Your task to perform on an android device: Add "lenovo thinkpad" to the cart on walmart.com, then select checkout. Image 0: 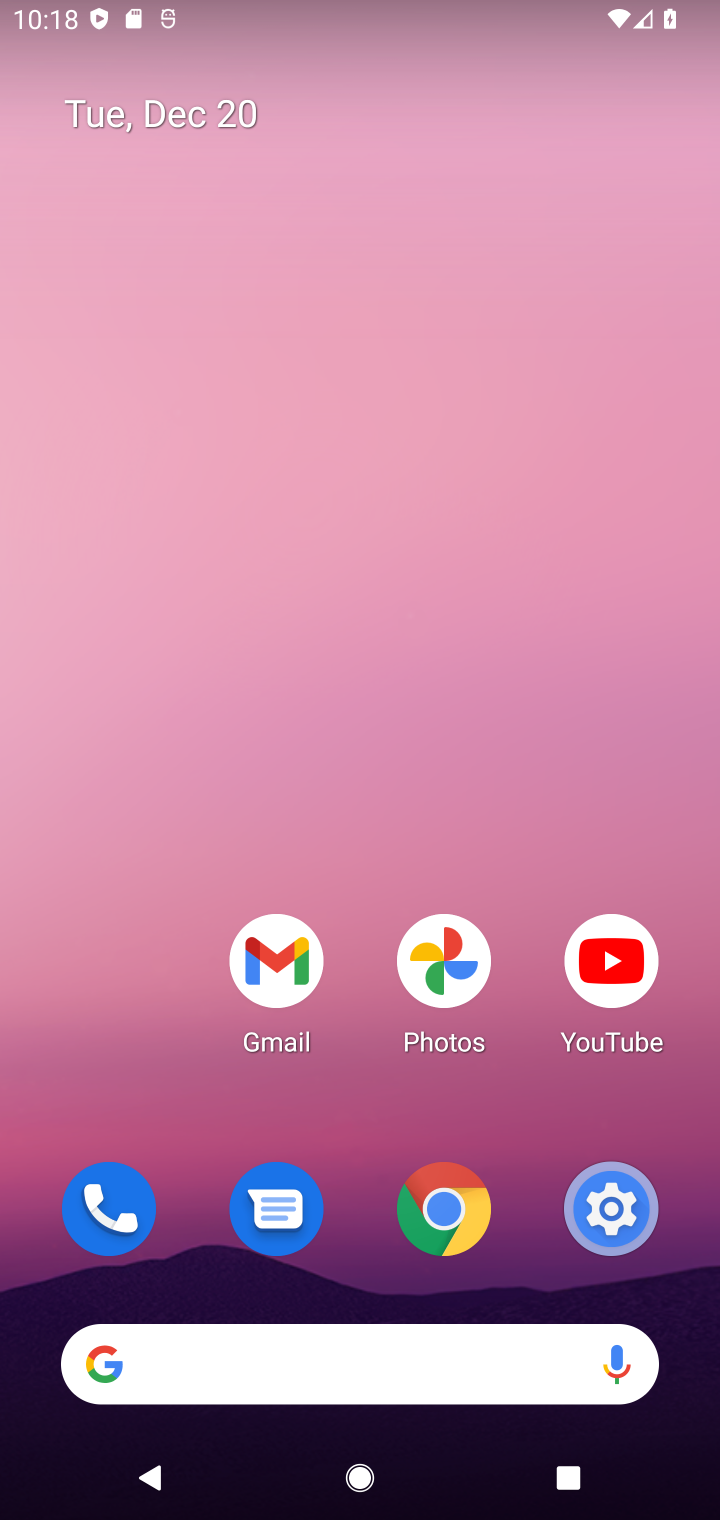
Step 0: click (445, 1225)
Your task to perform on an android device: Add "lenovo thinkpad" to the cart on walmart.com, then select checkout. Image 1: 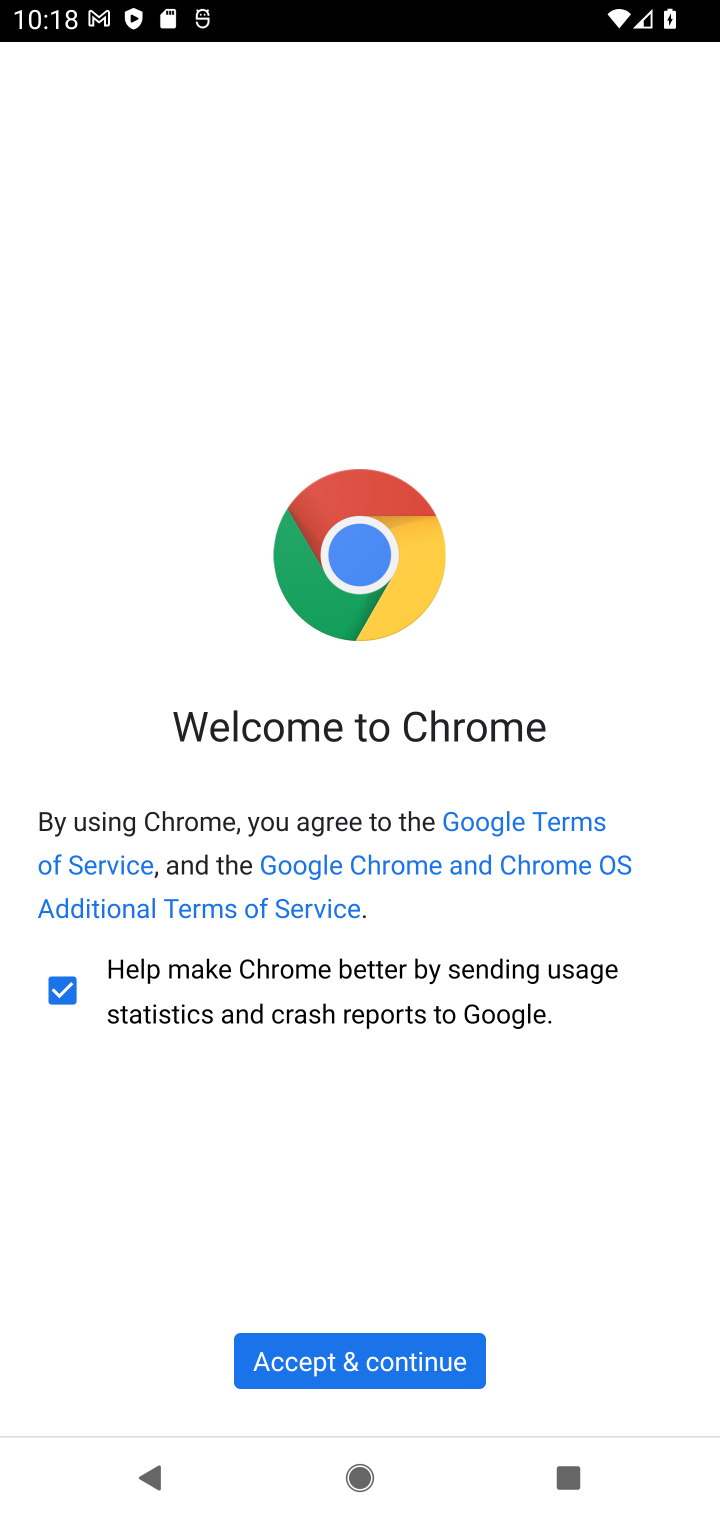
Step 1: click (347, 1371)
Your task to perform on an android device: Add "lenovo thinkpad" to the cart on walmart.com, then select checkout. Image 2: 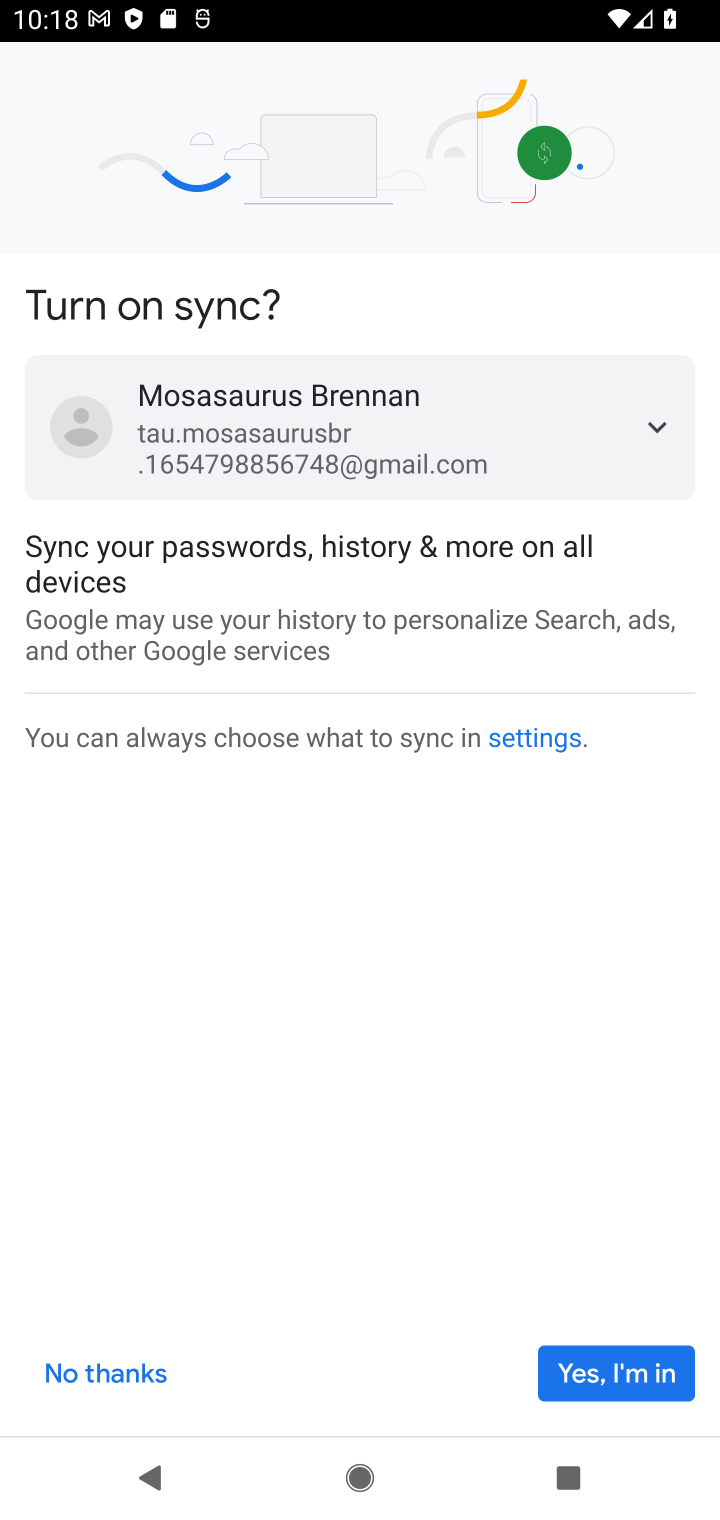
Step 2: click (120, 1381)
Your task to perform on an android device: Add "lenovo thinkpad" to the cart on walmart.com, then select checkout. Image 3: 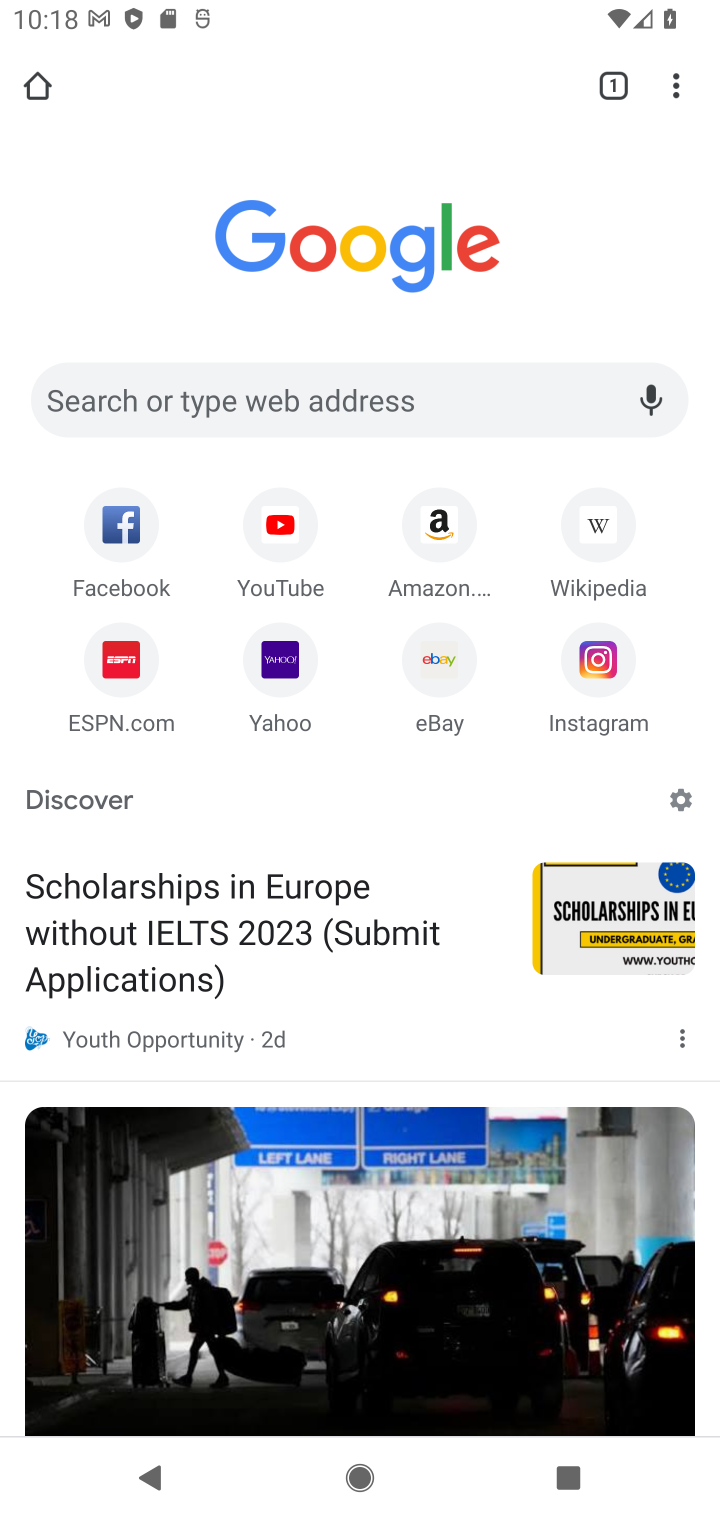
Step 3: click (183, 411)
Your task to perform on an android device: Add "lenovo thinkpad" to the cart on walmart.com, then select checkout. Image 4: 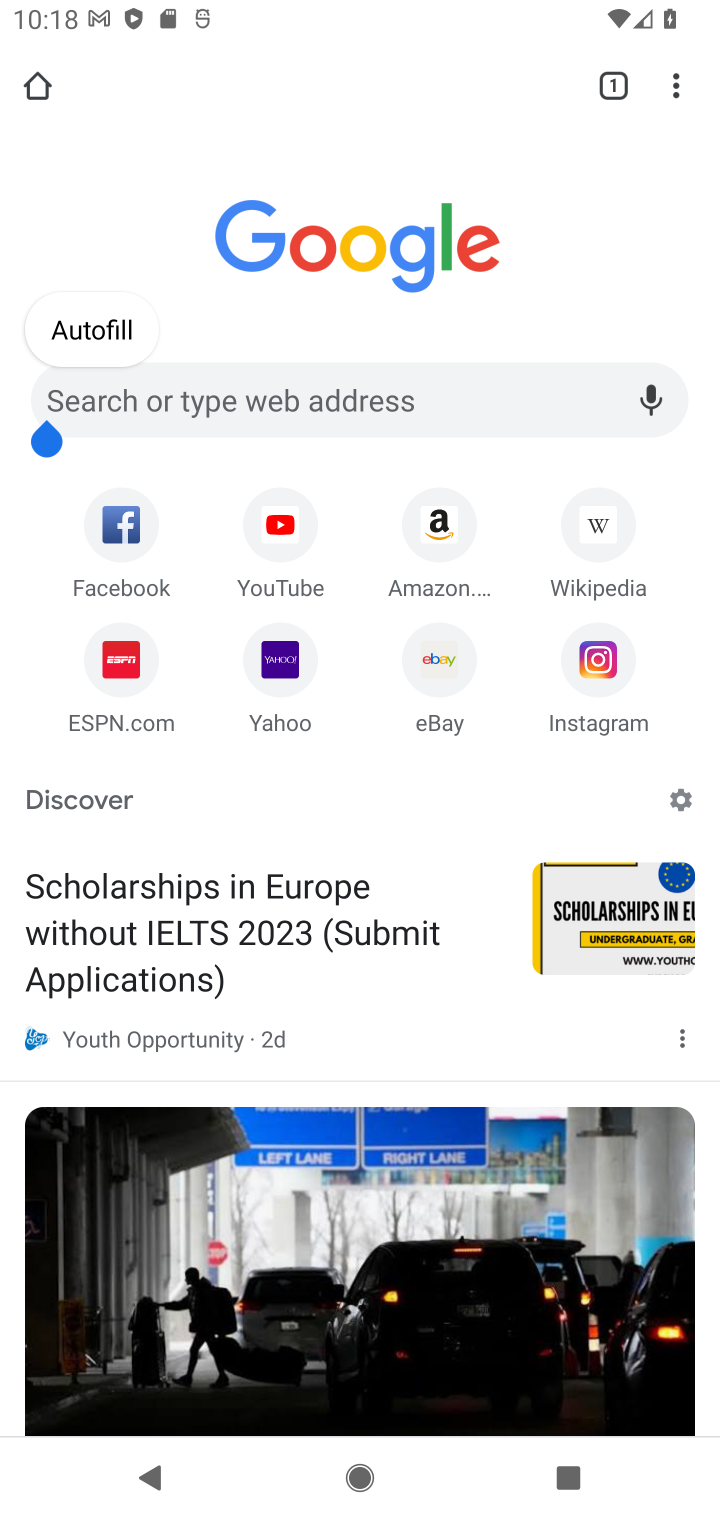
Step 4: click (201, 399)
Your task to perform on an android device: Add "lenovo thinkpad" to the cart on walmart.com, then select checkout. Image 5: 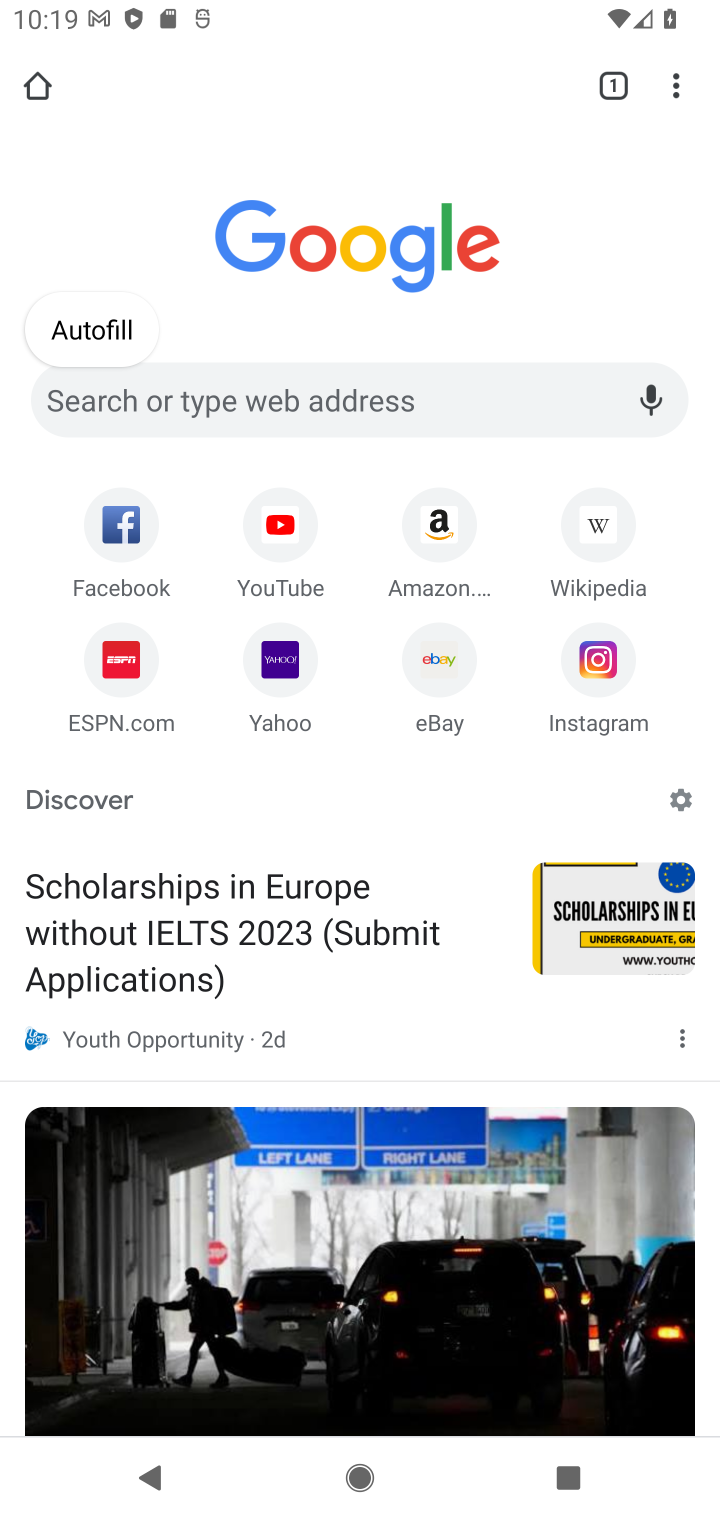
Step 5: click (143, 406)
Your task to perform on an android device: Add "lenovo thinkpad" to the cart on walmart.com, then select checkout. Image 6: 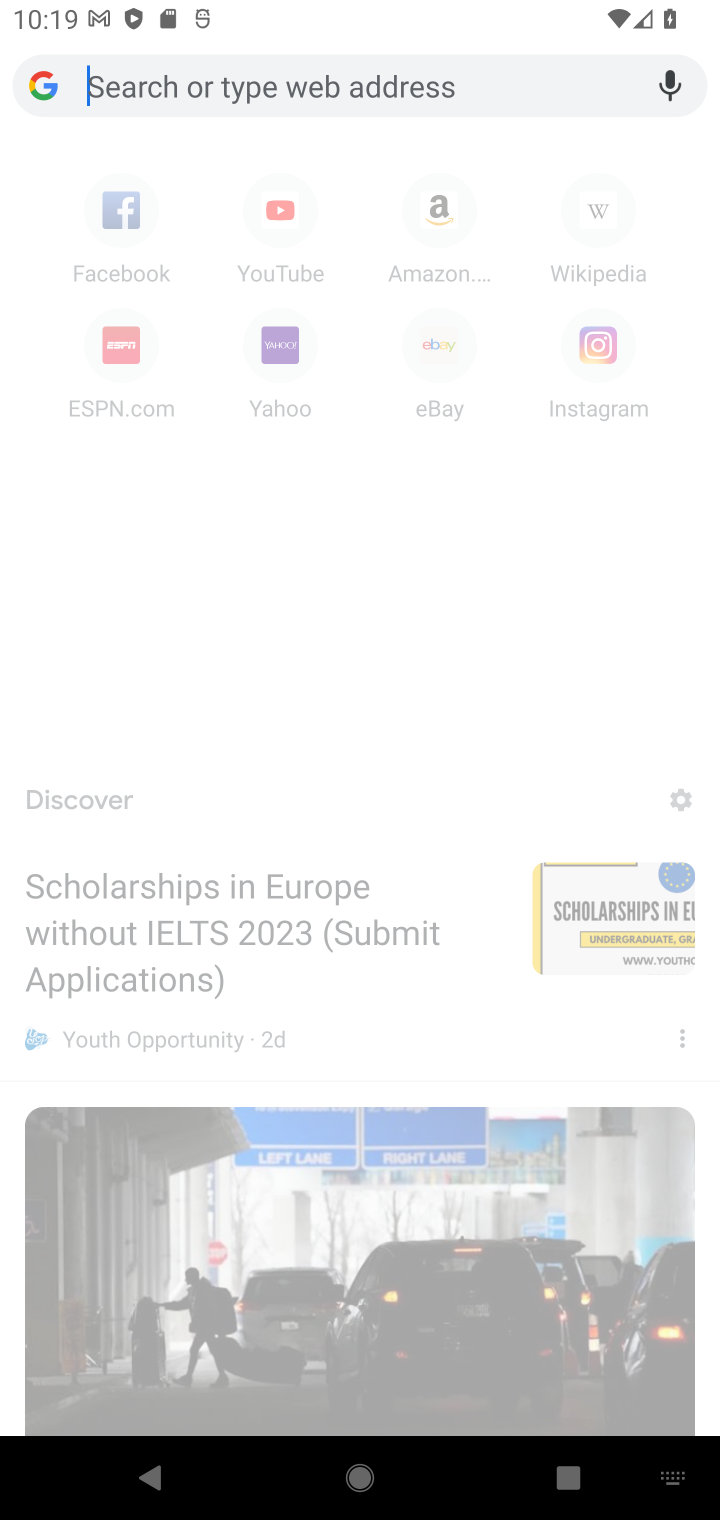
Step 6: type "walmart.com"
Your task to perform on an android device: Add "lenovo thinkpad" to the cart on walmart.com, then select checkout. Image 7: 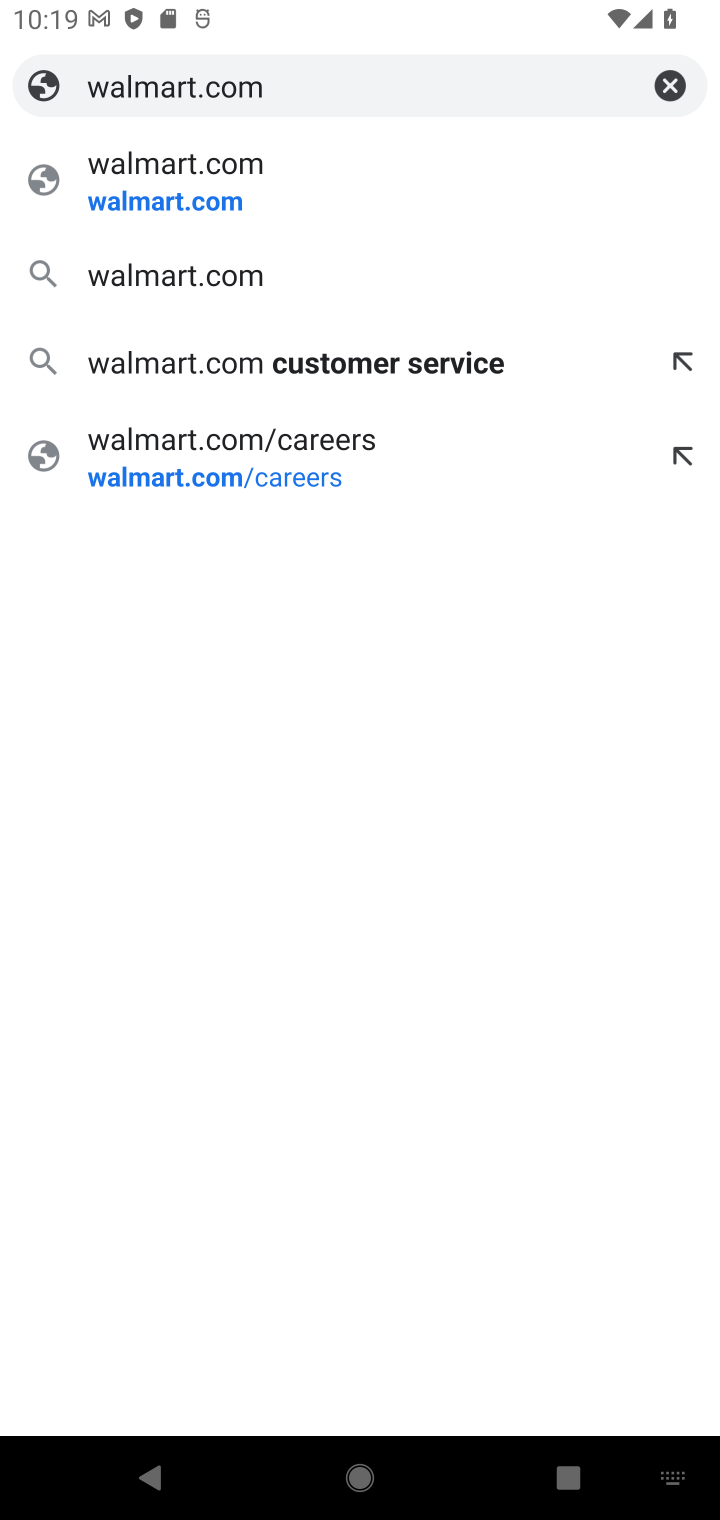
Step 7: click (168, 197)
Your task to perform on an android device: Add "lenovo thinkpad" to the cart on walmart.com, then select checkout. Image 8: 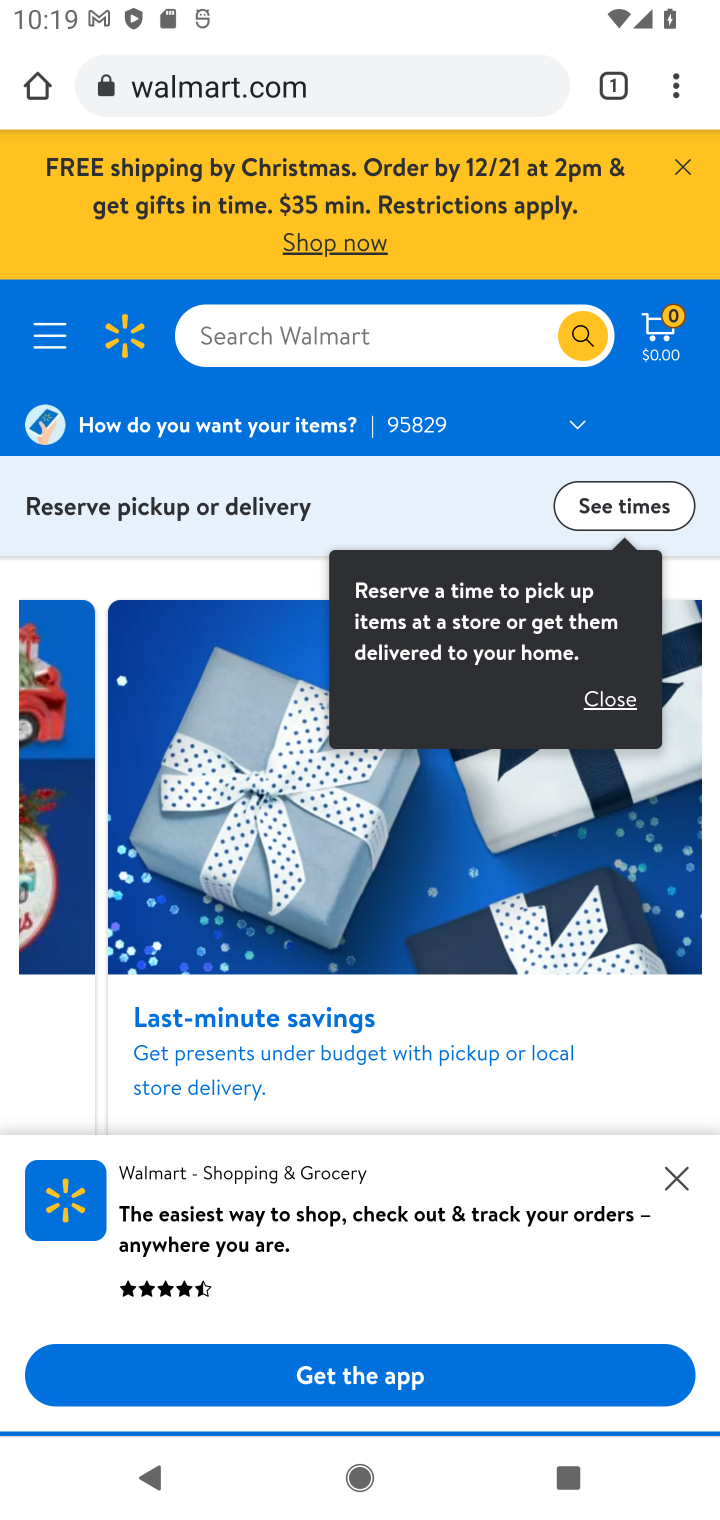
Step 8: click (313, 349)
Your task to perform on an android device: Add "lenovo thinkpad" to the cart on walmart.com, then select checkout. Image 9: 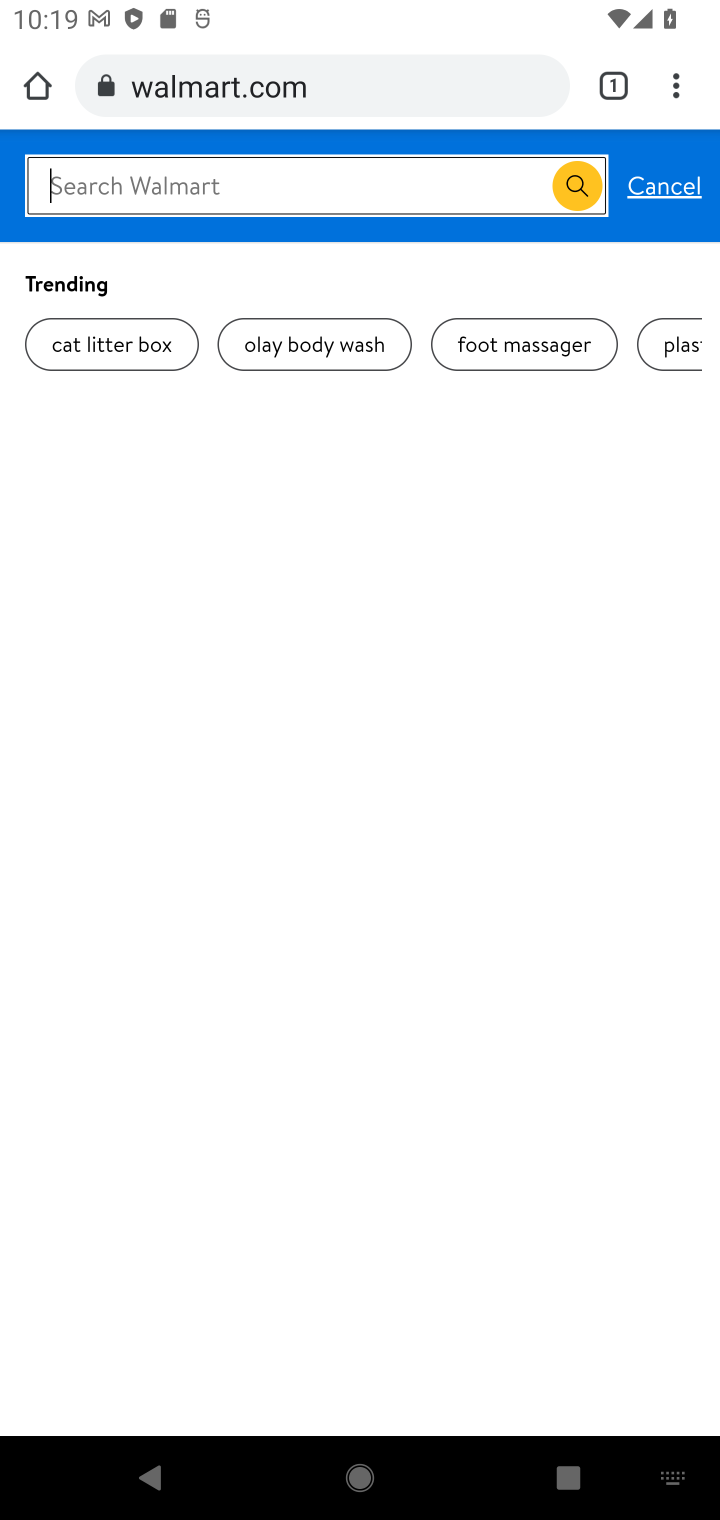
Step 9: type "lenovo thinkpad"
Your task to perform on an android device: Add "lenovo thinkpad" to the cart on walmart.com, then select checkout. Image 10: 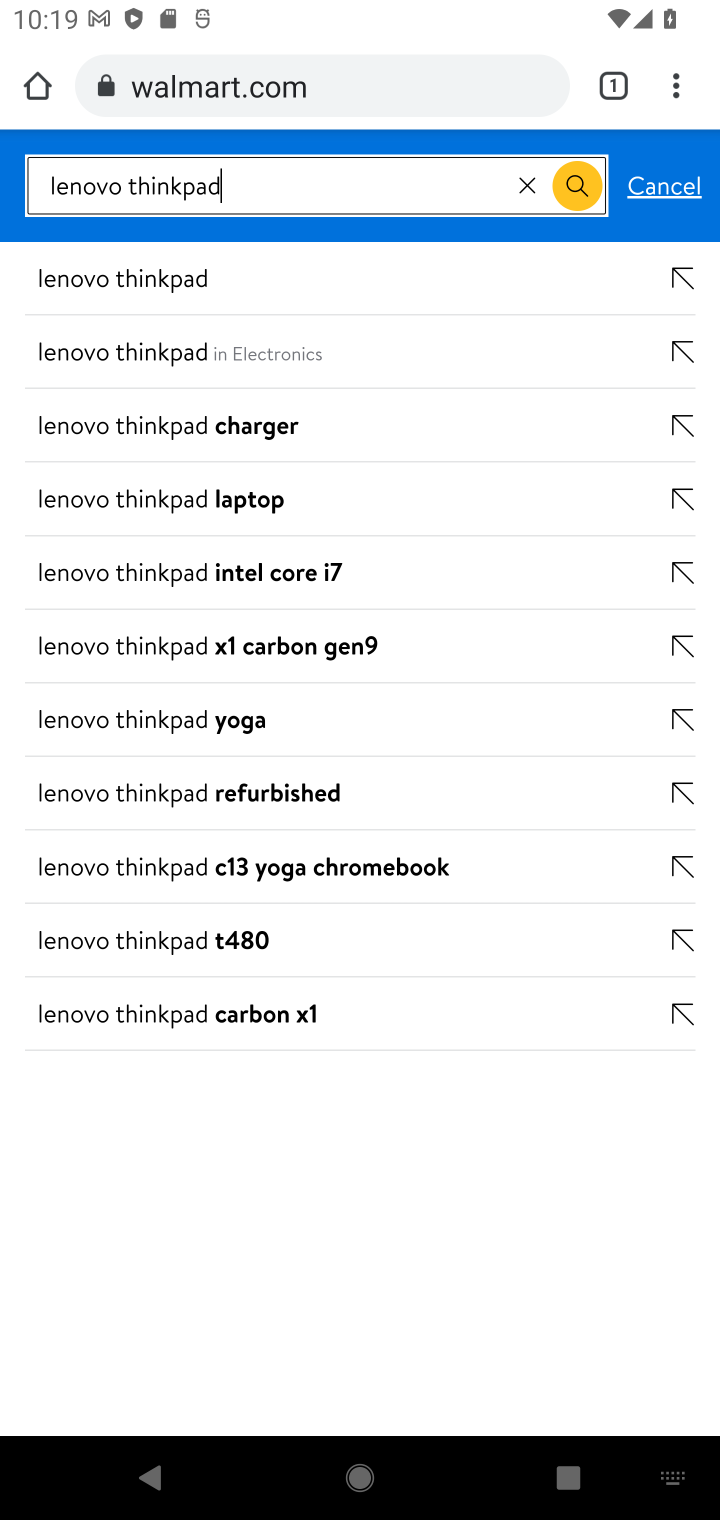
Step 10: click (156, 285)
Your task to perform on an android device: Add "lenovo thinkpad" to the cart on walmart.com, then select checkout. Image 11: 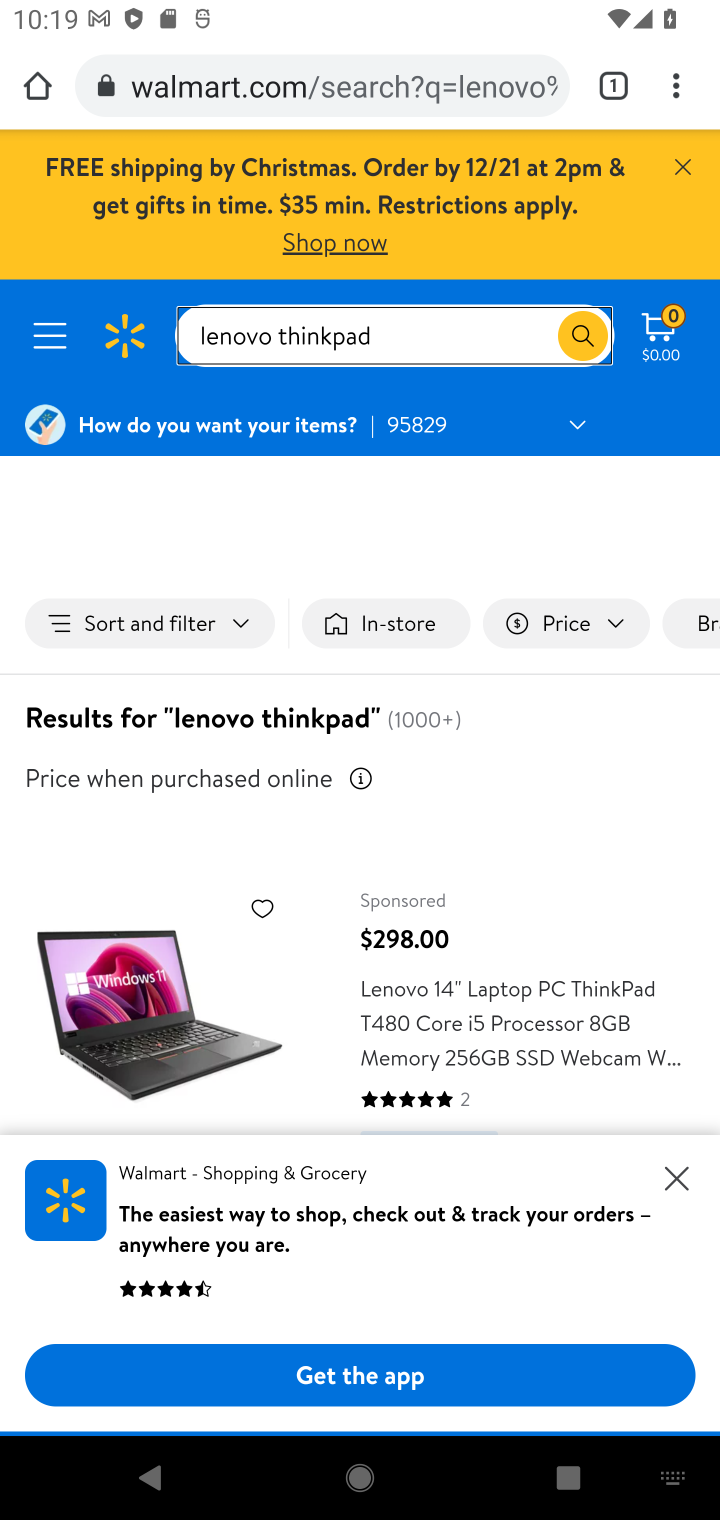
Step 11: click (687, 1171)
Your task to perform on an android device: Add "lenovo thinkpad" to the cart on walmart.com, then select checkout. Image 12: 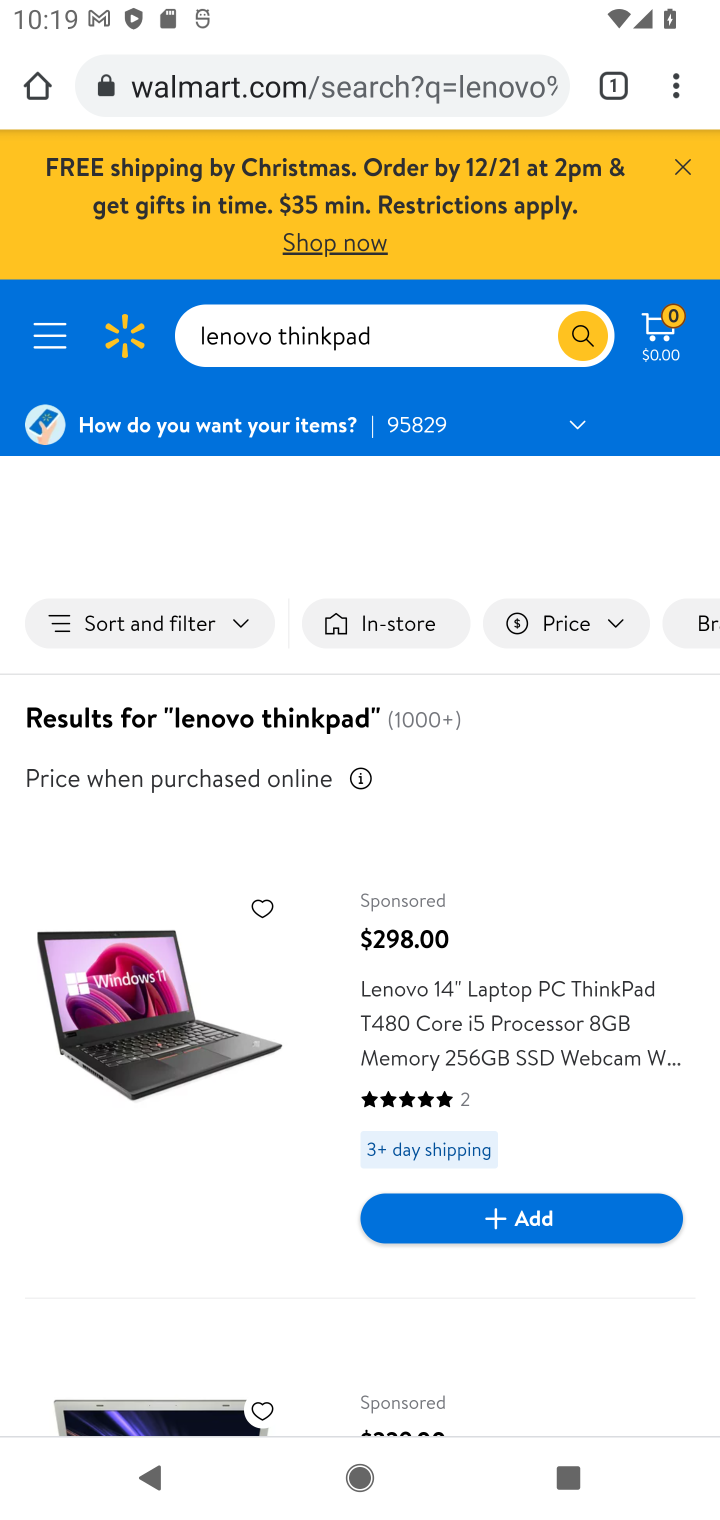
Step 12: click (476, 1216)
Your task to perform on an android device: Add "lenovo thinkpad" to the cart on walmart.com, then select checkout. Image 13: 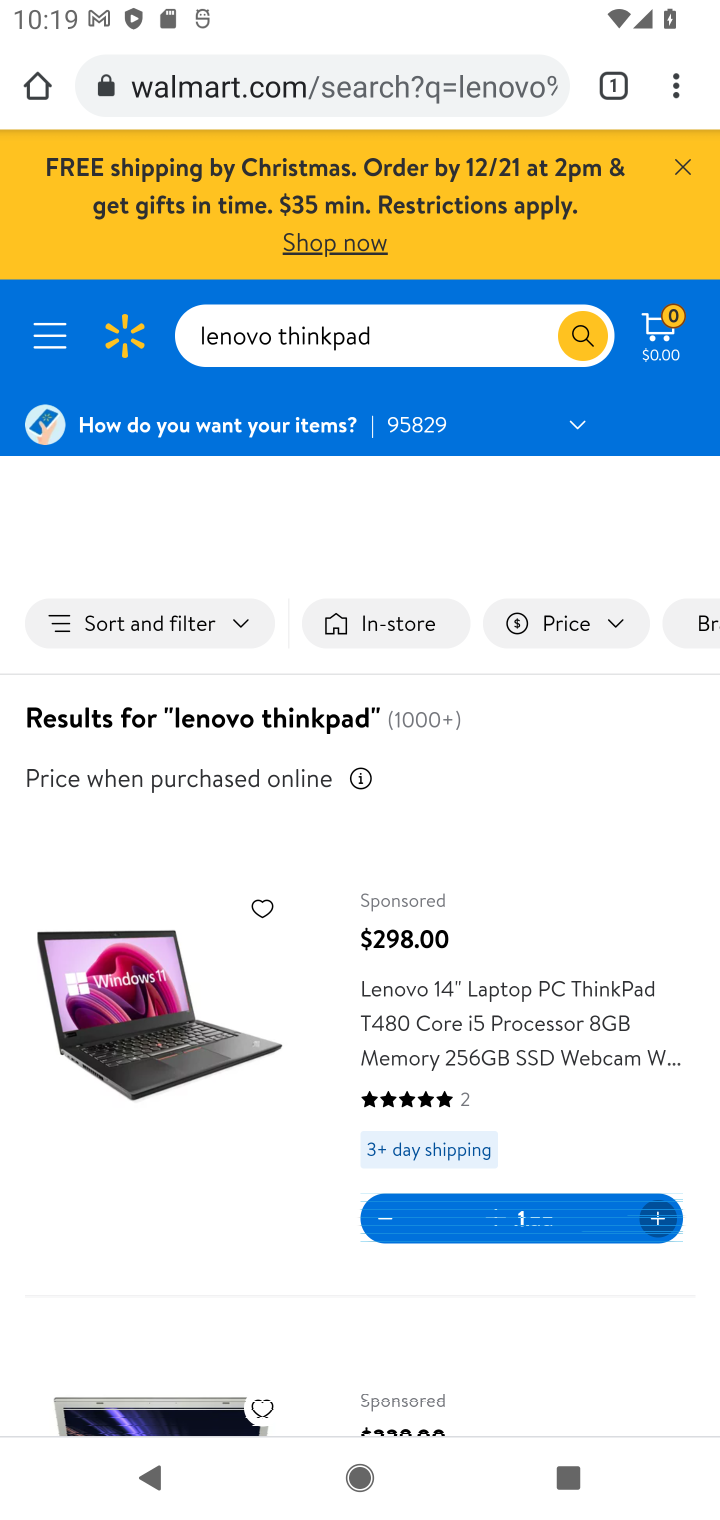
Step 13: click (658, 340)
Your task to perform on an android device: Add "lenovo thinkpad" to the cart on walmart.com, then select checkout. Image 14: 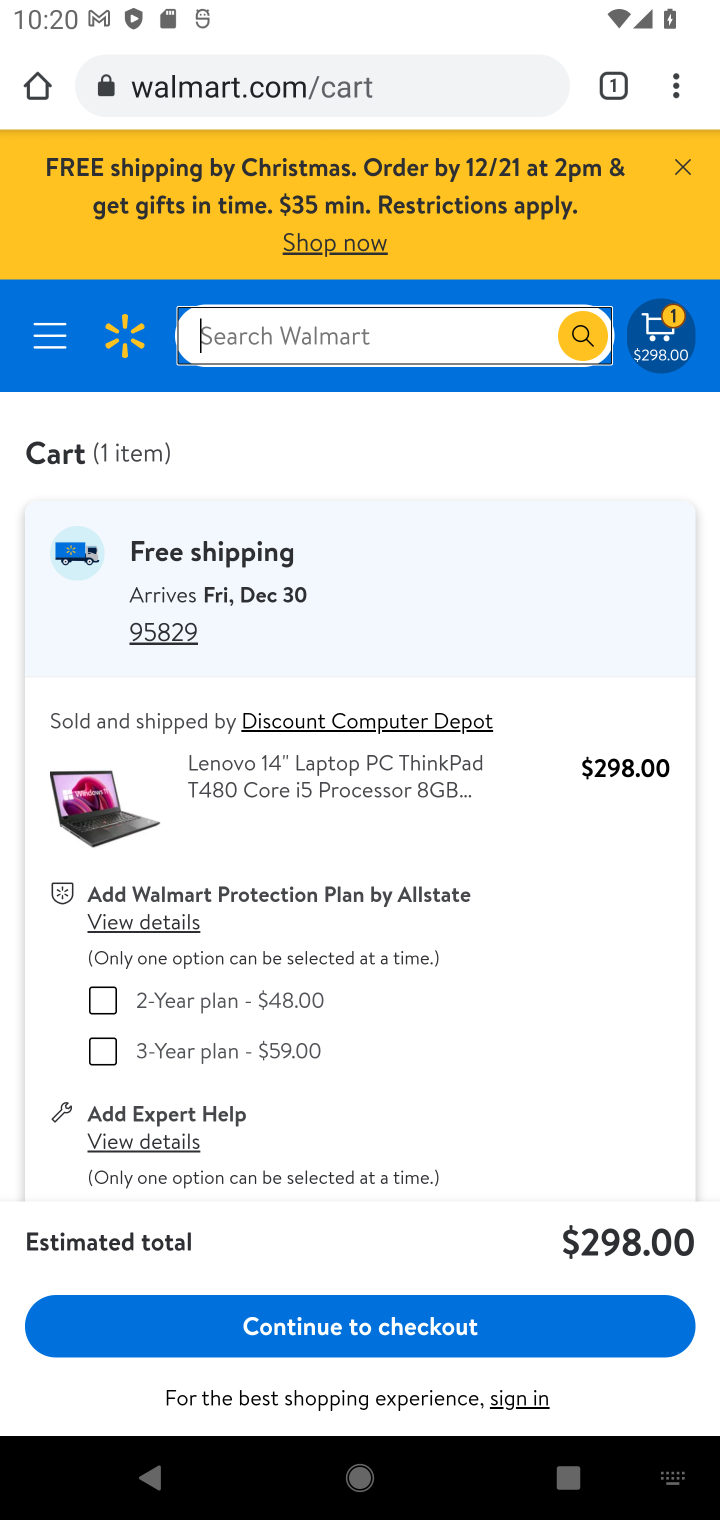
Step 14: click (367, 1339)
Your task to perform on an android device: Add "lenovo thinkpad" to the cart on walmart.com, then select checkout. Image 15: 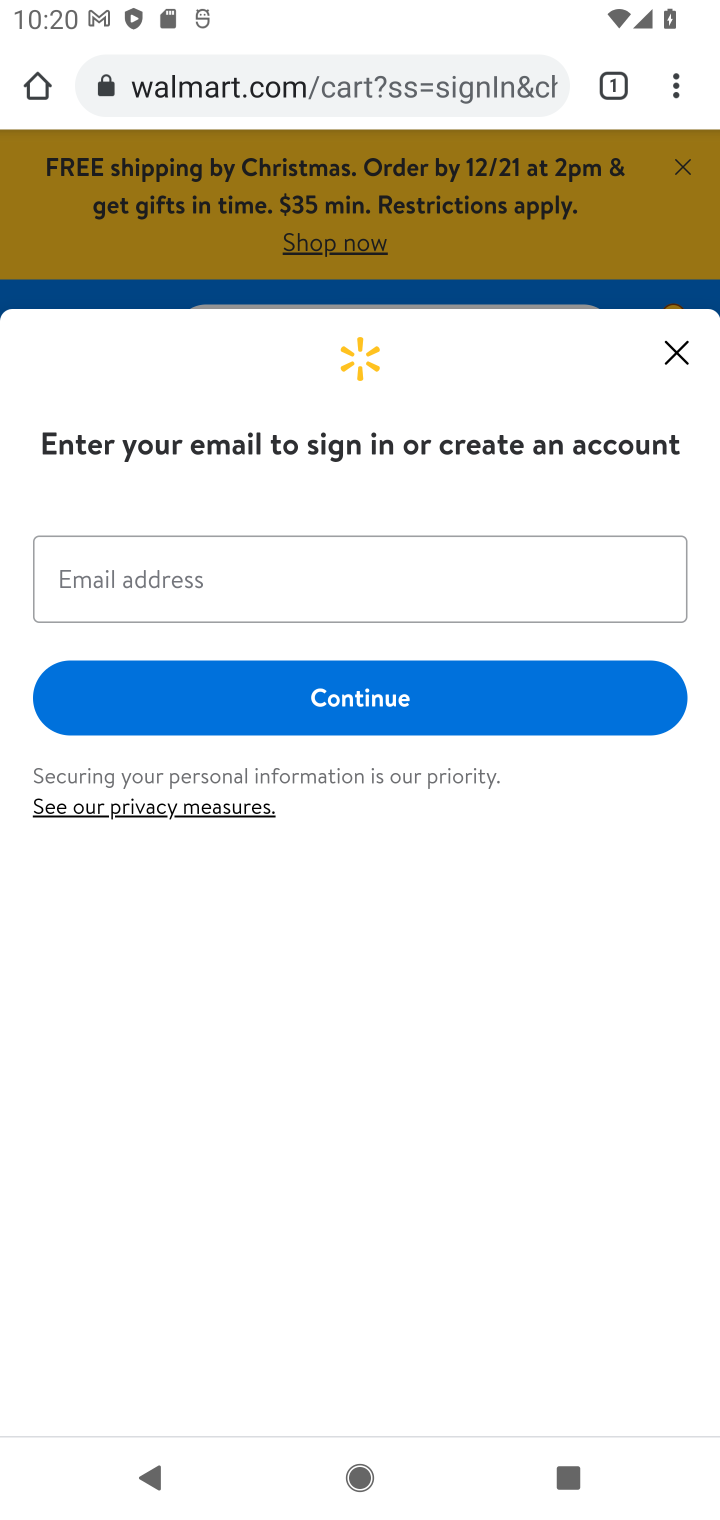
Step 15: task complete